Your task to perform on an android device: Go to Yahoo.com Image 0: 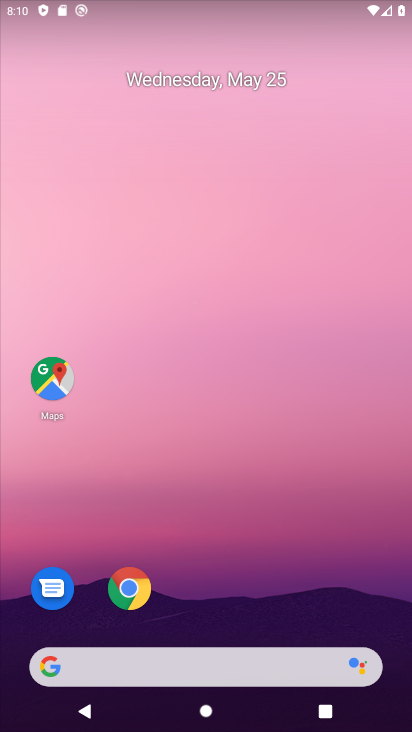
Step 0: click (119, 586)
Your task to perform on an android device: Go to Yahoo.com Image 1: 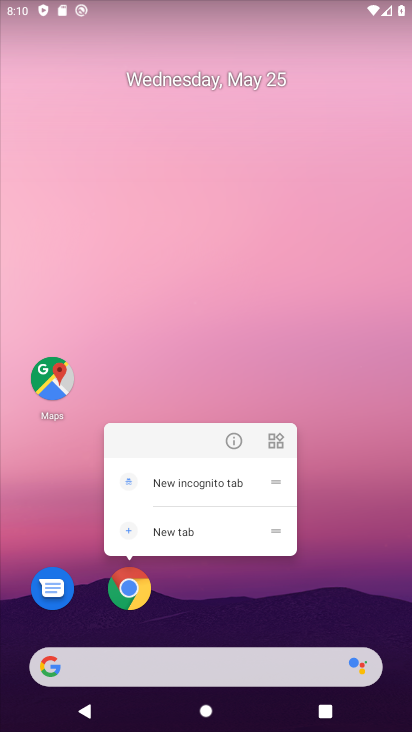
Step 1: click (136, 592)
Your task to perform on an android device: Go to Yahoo.com Image 2: 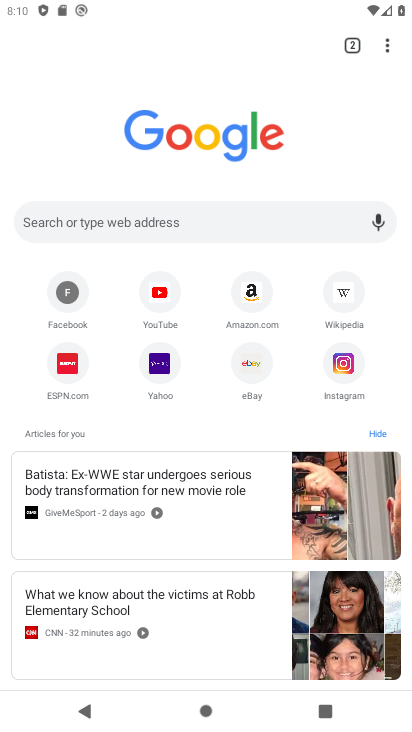
Step 2: click (158, 370)
Your task to perform on an android device: Go to Yahoo.com Image 3: 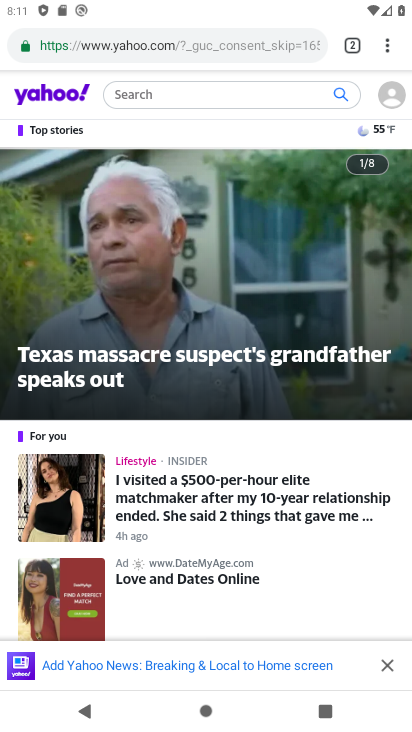
Step 3: task complete